Your task to perform on an android device: turn notification dots off Image 0: 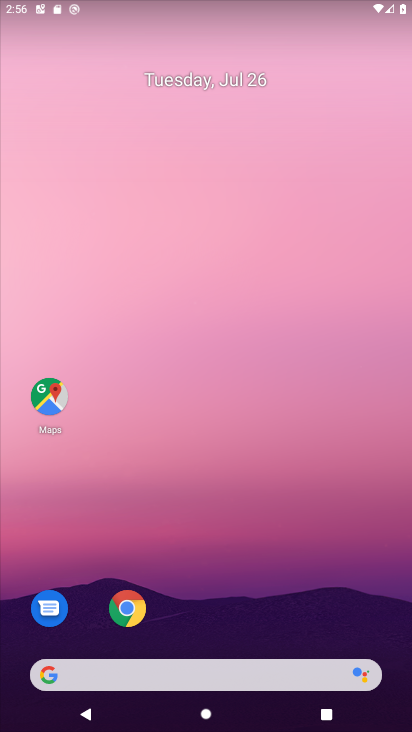
Step 0: drag from (296, 632) to (176, 92)
Your task to perform on an android device: turn notification dots off Image 1: 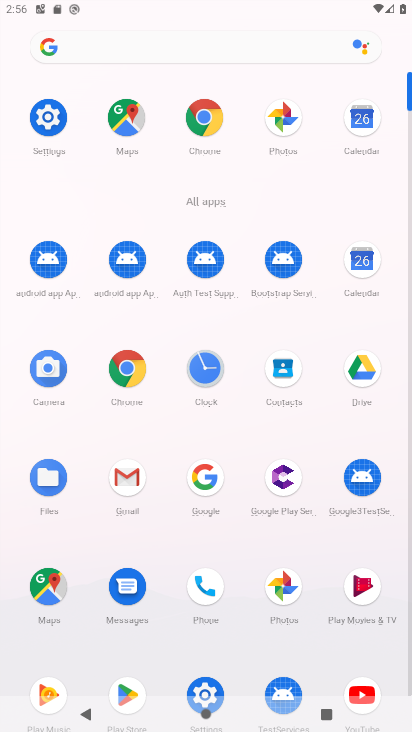
Step 1: click (205, 684)
Your task to perform on an android device: turn notification dots off Image 2: 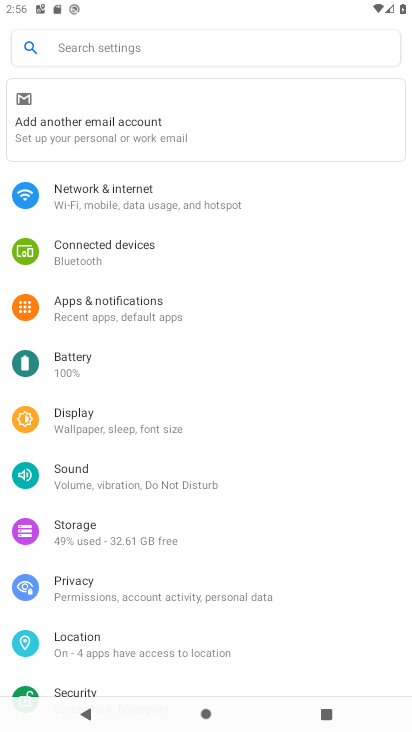
Step 2: click (109, 316)
Your task to perform on an android device: turn notification dots off Image 3: 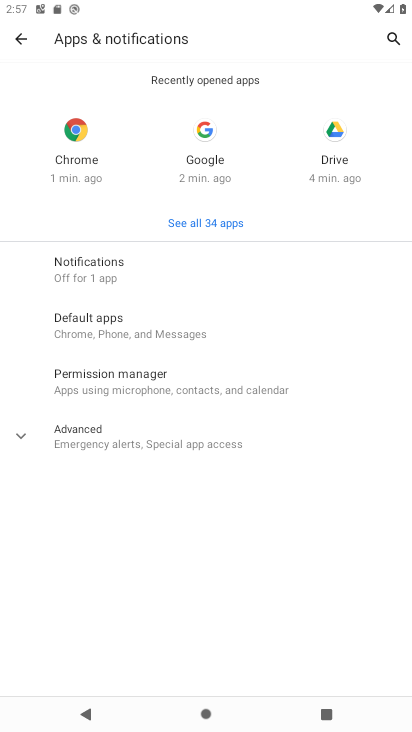
Step 3: click (153, 433)
Your task to perform on an android device: turn notification dots off Image 4: 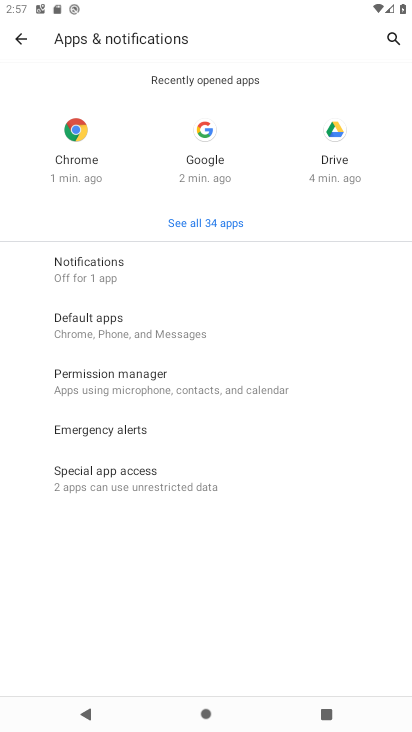
Step 4: click (104, 278)
Your task to perform on an android device: turn notification dots off Image 5: 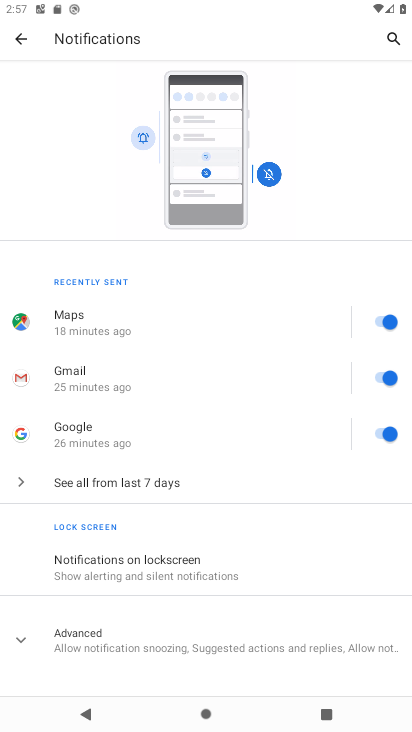
Step 5: drag from (115, 631) to (43, 233)
Your task to perform on an android device: turn notification dots off Image 6: 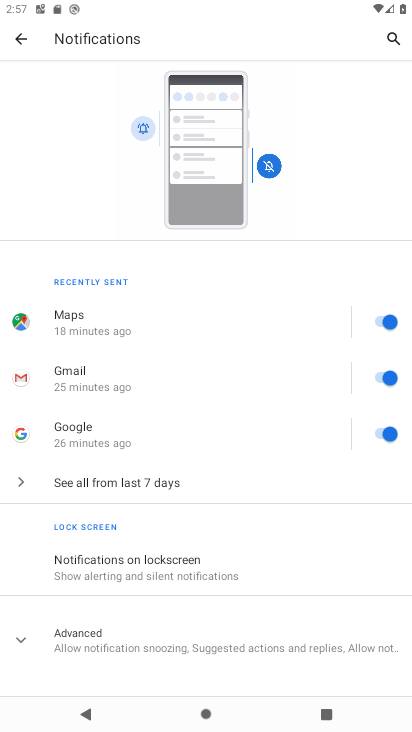
Step 6: click (139, 643)
Your task to perform on an android device: turn notification dots off Image 7: 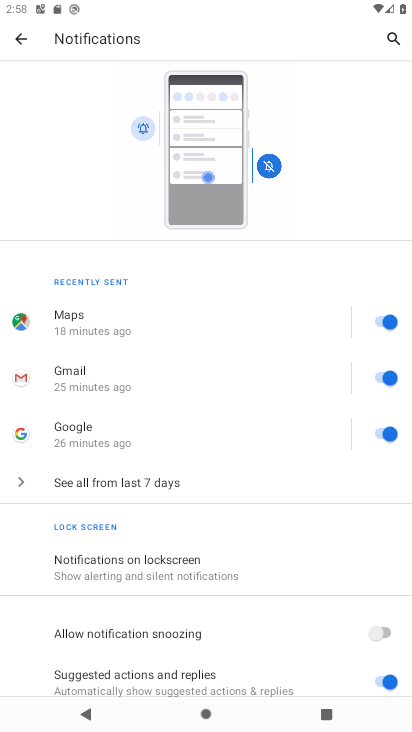
Step 7: task complete